Your task to perform on an android device: add a contact in the contacts app Image 0: 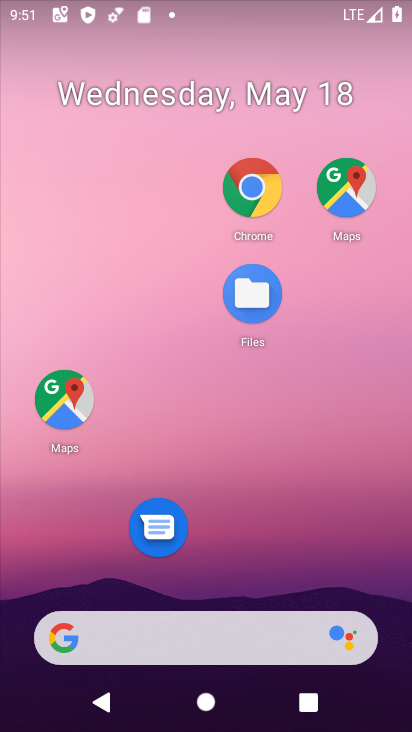
Step 0: drag from (303, 493) to (287, 145)
Your task to perform on an android device: add a contact in the contacts app Image 1: 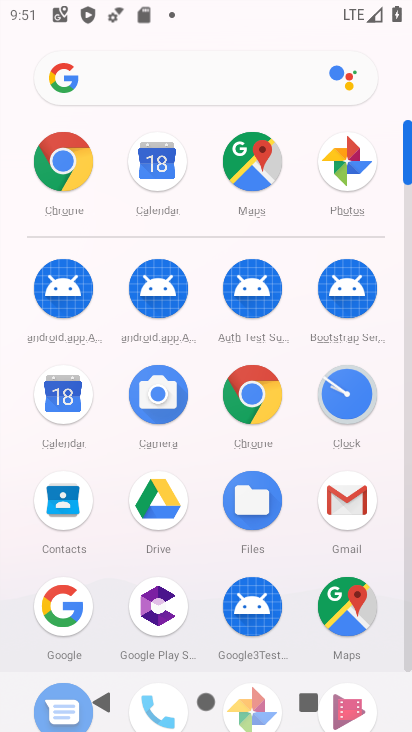
Step 1: click (65, 515)
Your task to perform on an android device: add a contact in the contacts app Image 2: 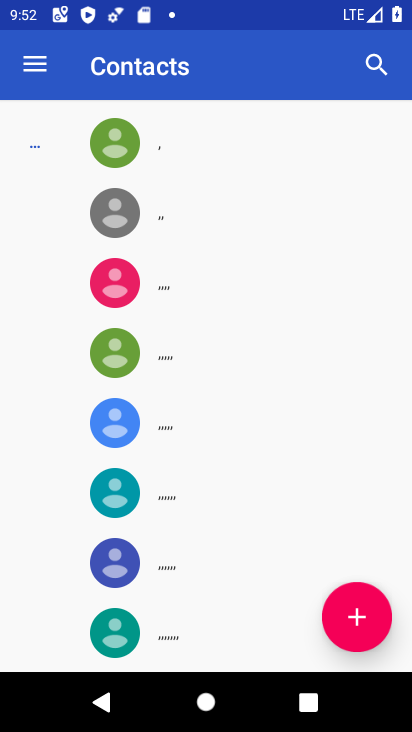
Step 2: click (358, 620)
Your task to perform on an android device: add a contact in the contacts app Image 3: 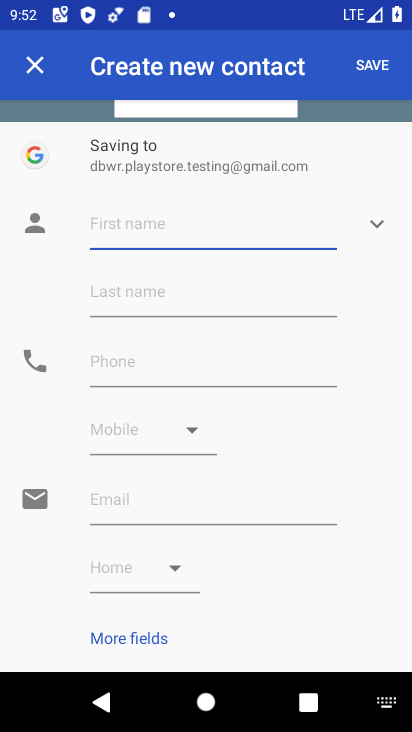
Step 3: type "sedg"
Your task to perform on an android device: add a contact in the contacts app Image 4: 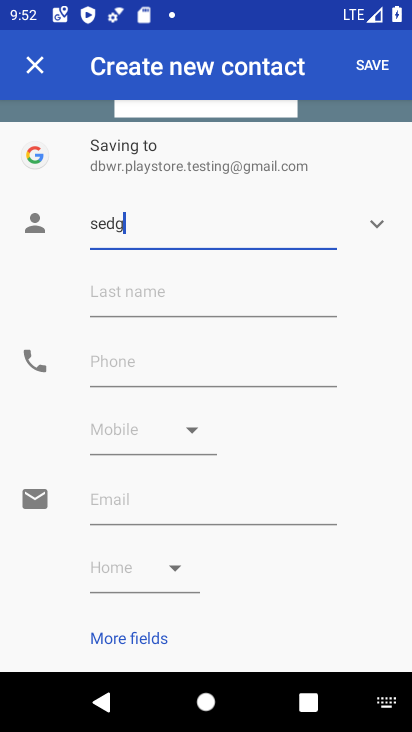
Step 4: click (314, 360)
Your task to perform on an android device: add a contact in the contacts app Image 5: 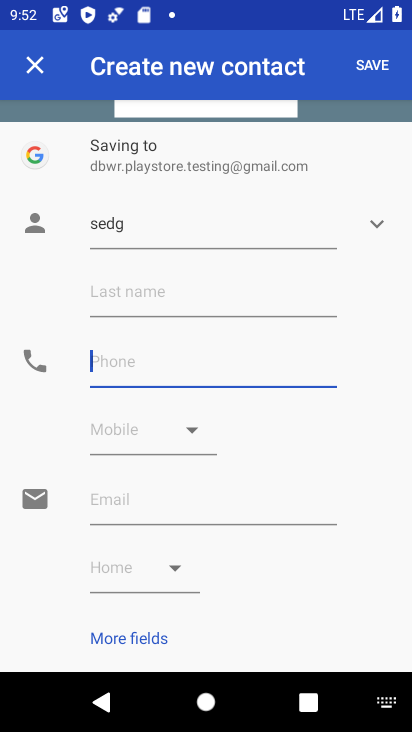
Step 5: type "988789"
Your task to perform on an android device: add a contact in the contacts app Image 6: 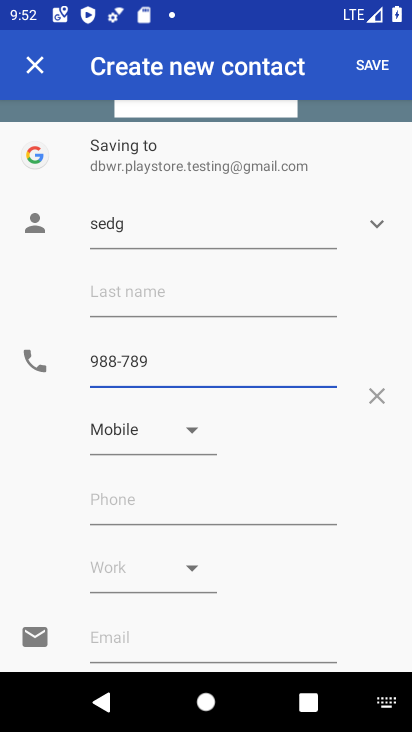
Step 6: click (361, 65)
Your task to perform on an android device: add a contact in the contacts app Image 7: 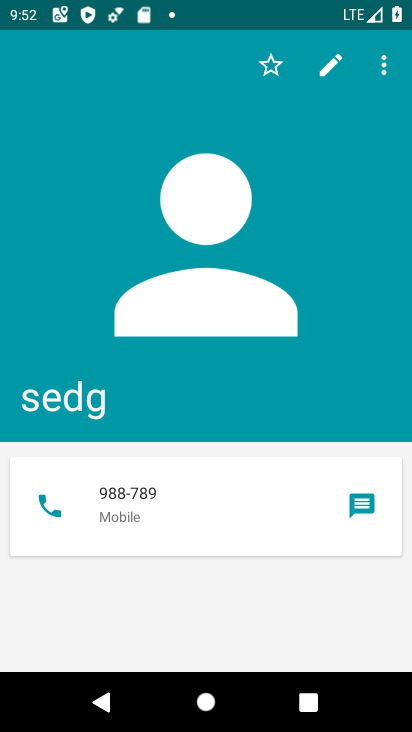
Step 7: task complete